Your task to perform on an android device: Clear the cart on amazon. Add rayovac triple a to the cart on amazon, then select checkout. Image 0: 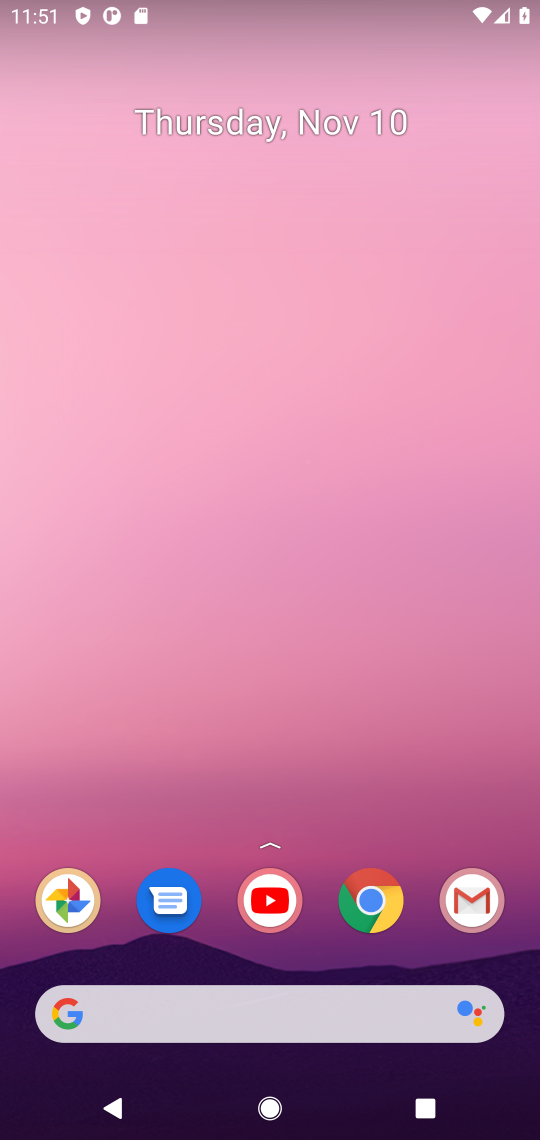
Step 0: click (376, 892)
Your task to perform on an android device: Clear the cart on amazon. Add rayovac triple a to the cart on amazon, then select checkout. Image 1: 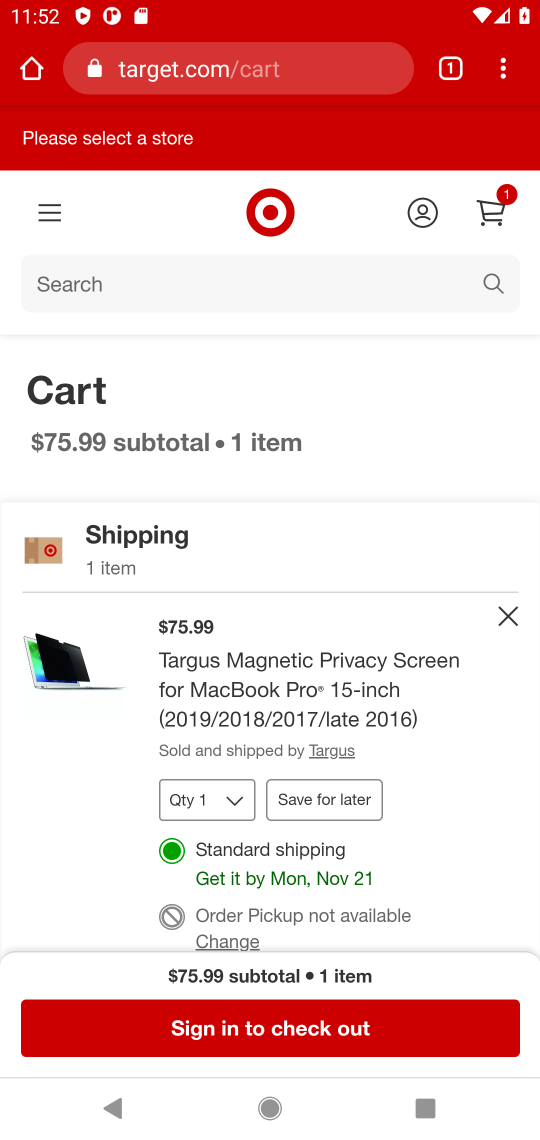
Step 1: click (228, 69)
Your task to perform on an android device: Clear the cart on amazon. Add rayovac triple a to the cart on amazon, then select checkout. Image 2: 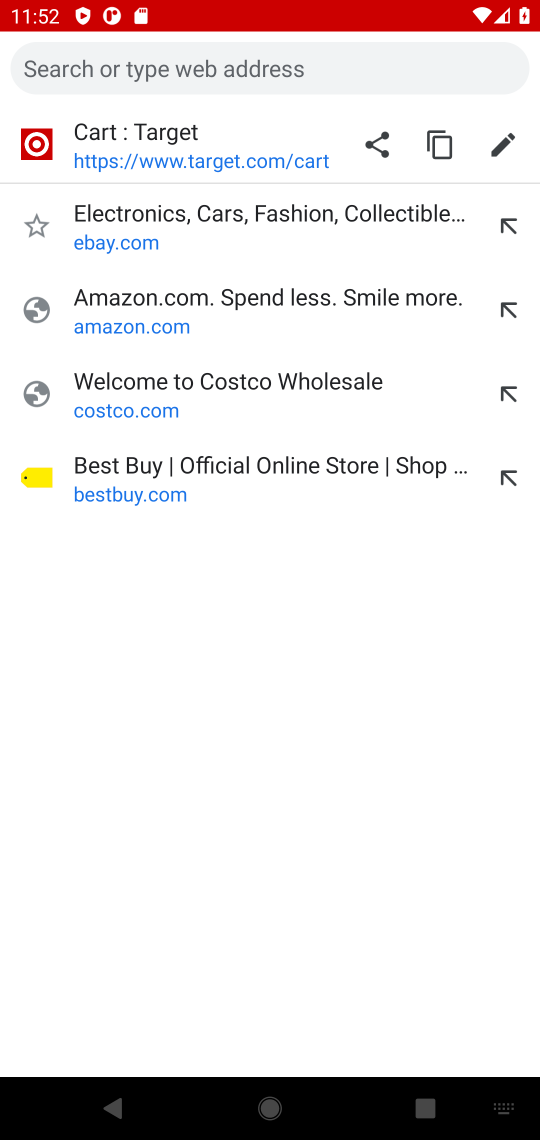
Step 2: click (162, 321)
Your task to perform on an android device: Clear the cart on amazon. Add rayovac triple a to the cart on amazon, then select checkout. Image 3: 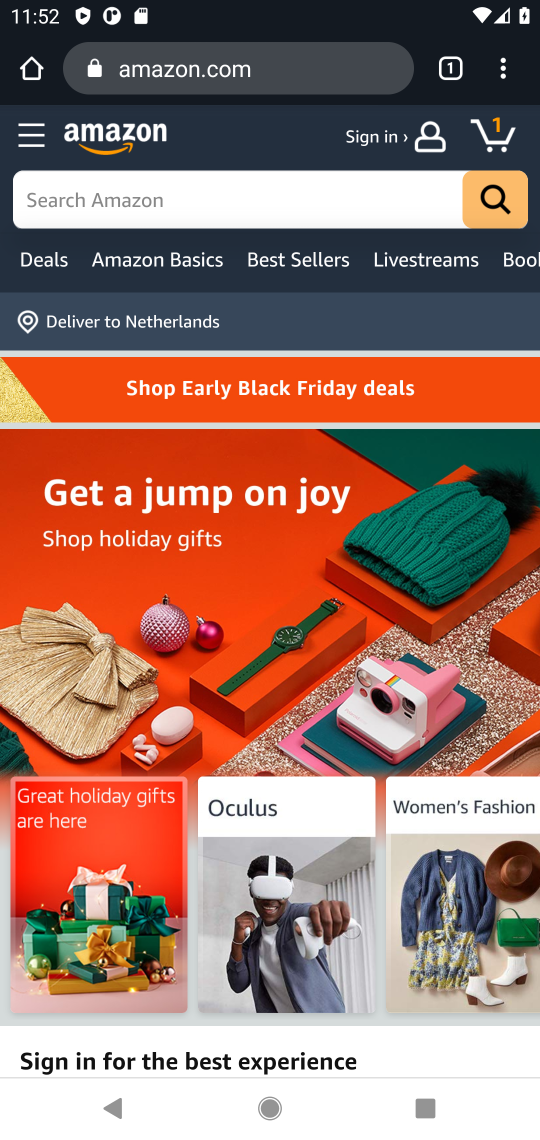
Step 3: click (110, 188)
Your task to perform on an android device: Clear the cart on amazon. Add rayovac triple a to the cart on amazon, then select checkout. Image 4: 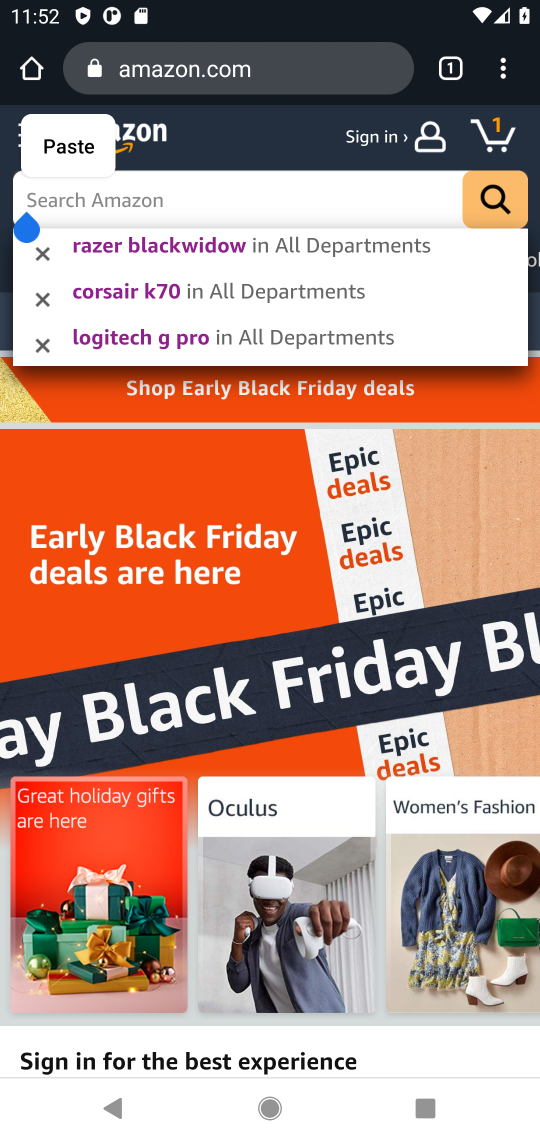
Step 4: type "rayovac triple a"
Your task to perform on an android device: Clear the cart on amazon. Add rayovac triple a to the cart on amazon, then select checkout. Image 5: 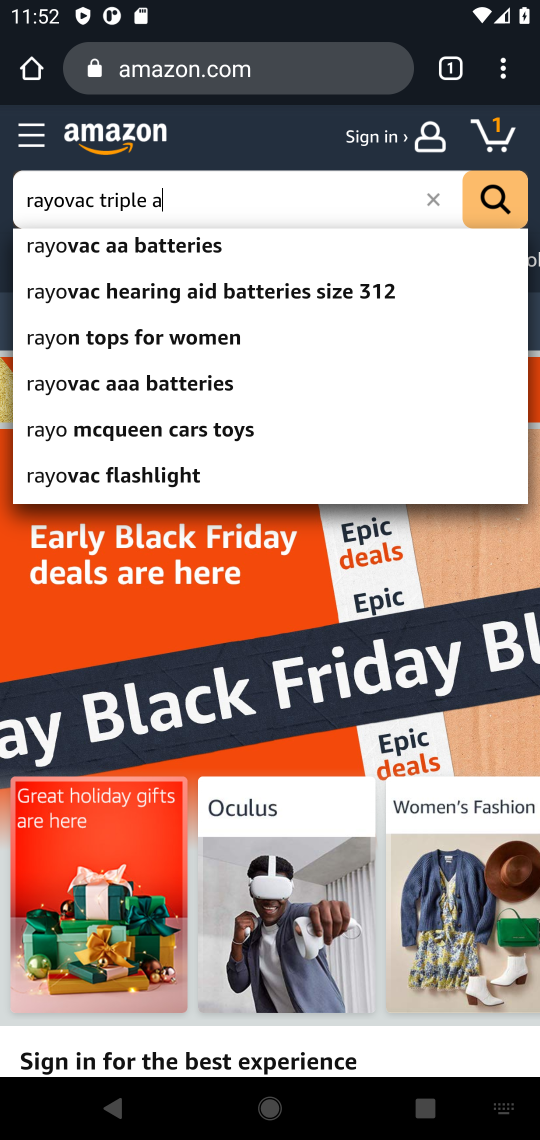
Step 5: press enter
Your task to perform on an android device: Clear the cart on amazon. Add rayovac triple a to the cart on amazon, then select checkout. Image 6: 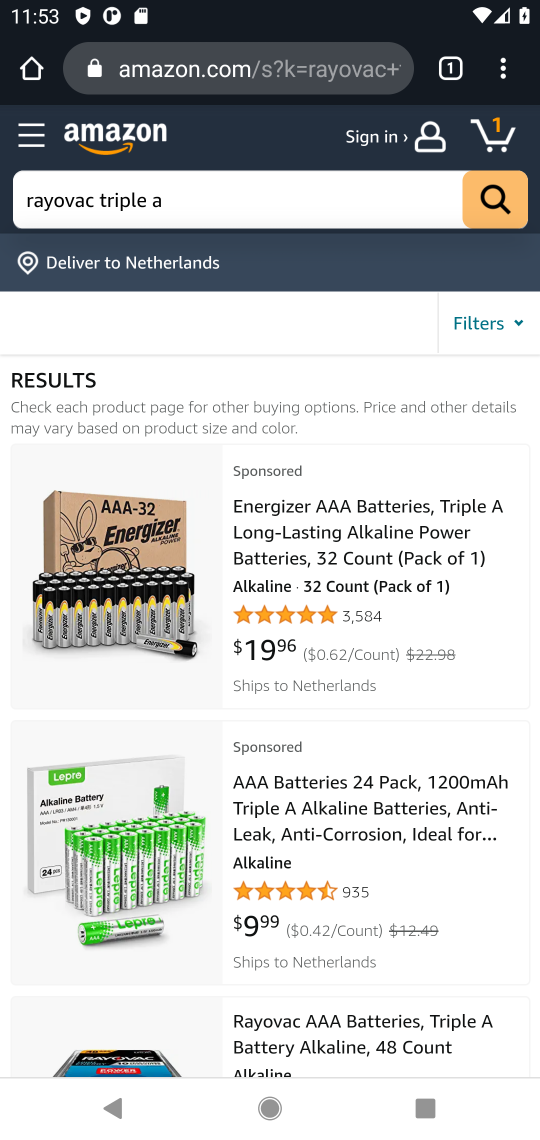
Step 6: drag from (399, 834) to (482, 512)
Your task to perform on an android device: Clear the cart on amazon. Add rayovac triple a to the cart on amazon, then select checkout. Image 7: 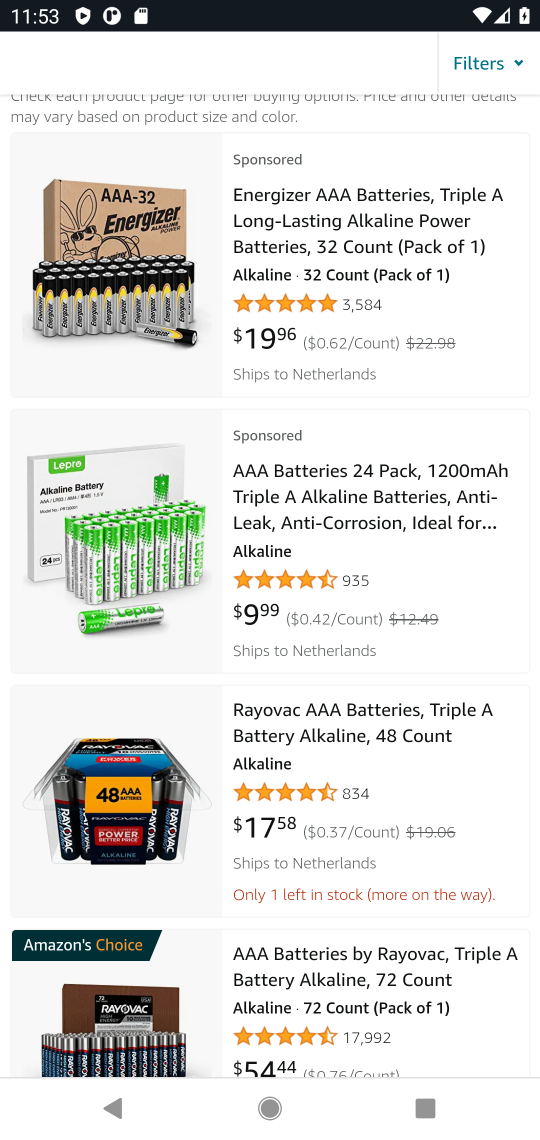
Step 7: click (356, 732)
Your task to perform on an android device: Clear the cart on amazon. Add rayovac triple a to the cart on amazon, then select checkout. Image 8: 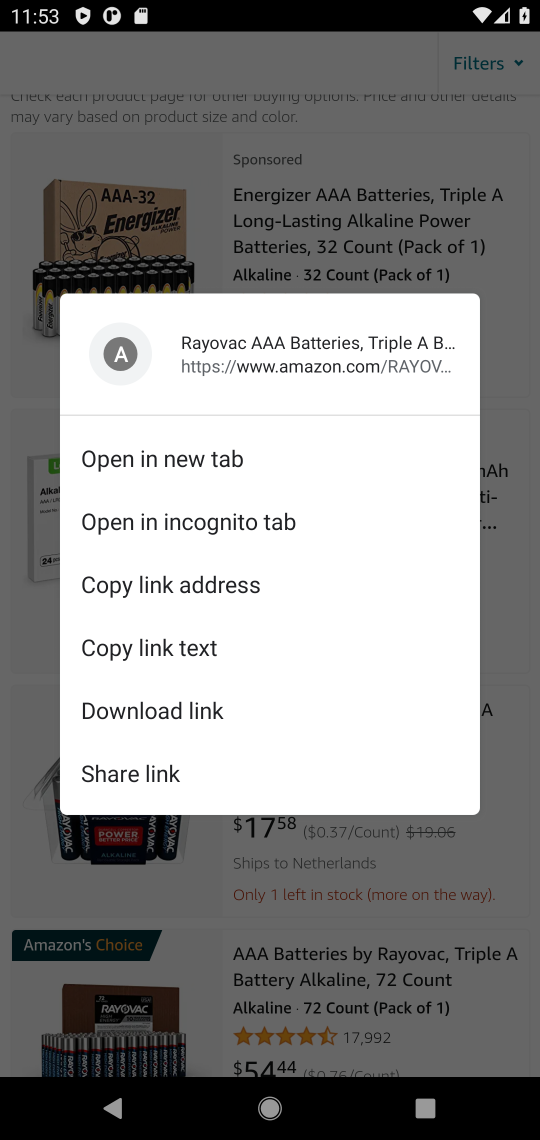
Step 8: click (520, 717)
Your task to perform on an android device: Clear the cart on amazon. Add rayovac triple a to the cart on amazon, then select checkout. Image 9: 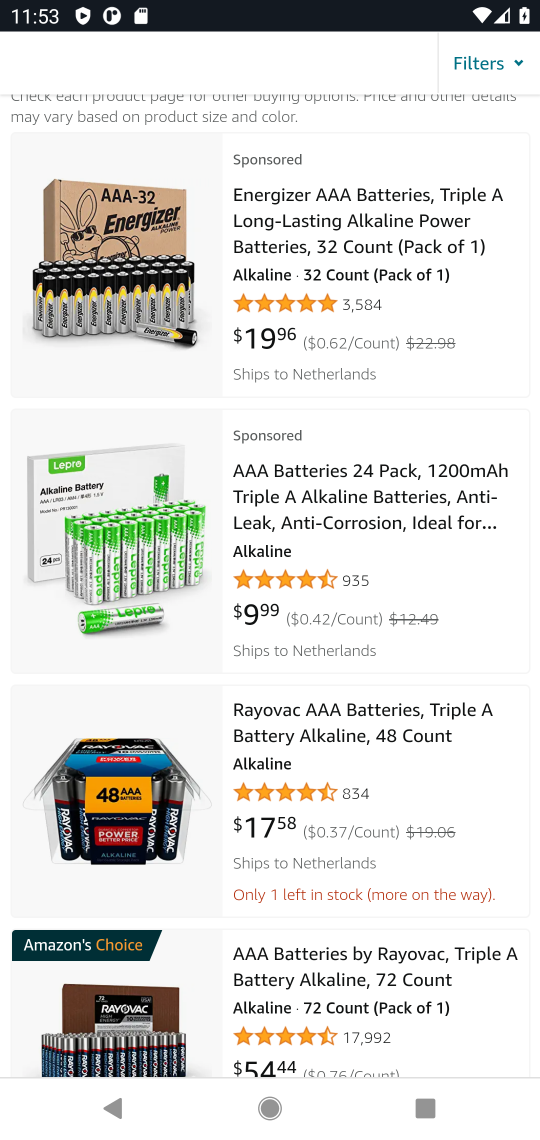
Step 9: click (292, 730)
Your task to perform on an android device: Clear the cart on amazon. Add rayovac triple a to the cart on amazon, then select checkout. Image 10: 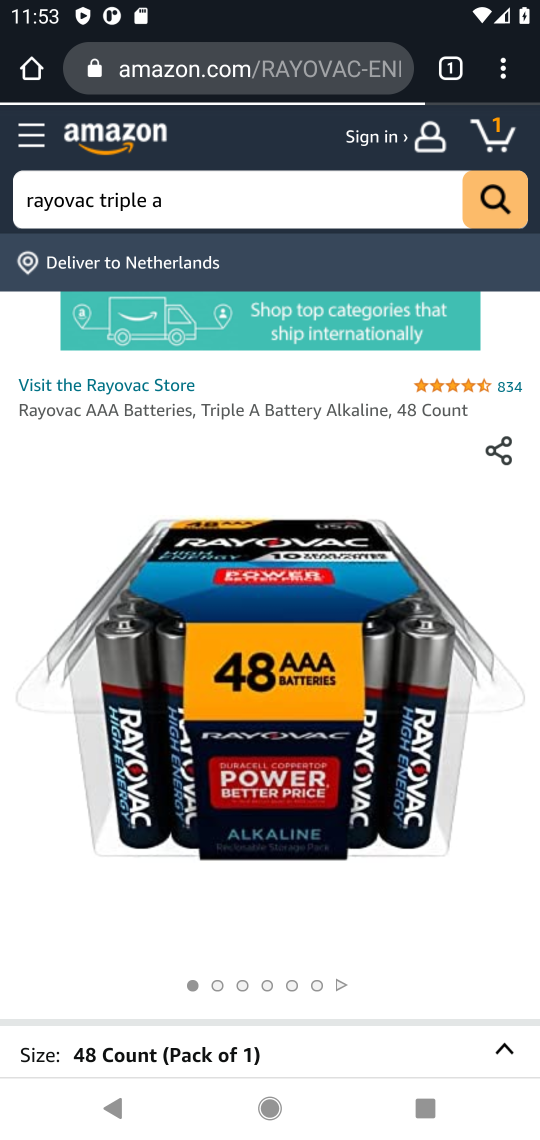
Step 10: drag from (163, 954) to (393, 244)
Your task to perform on an android device: Clear the cart on amazon. Add rayovac triple a to the cart on amazon, then select checkout. Image 11: 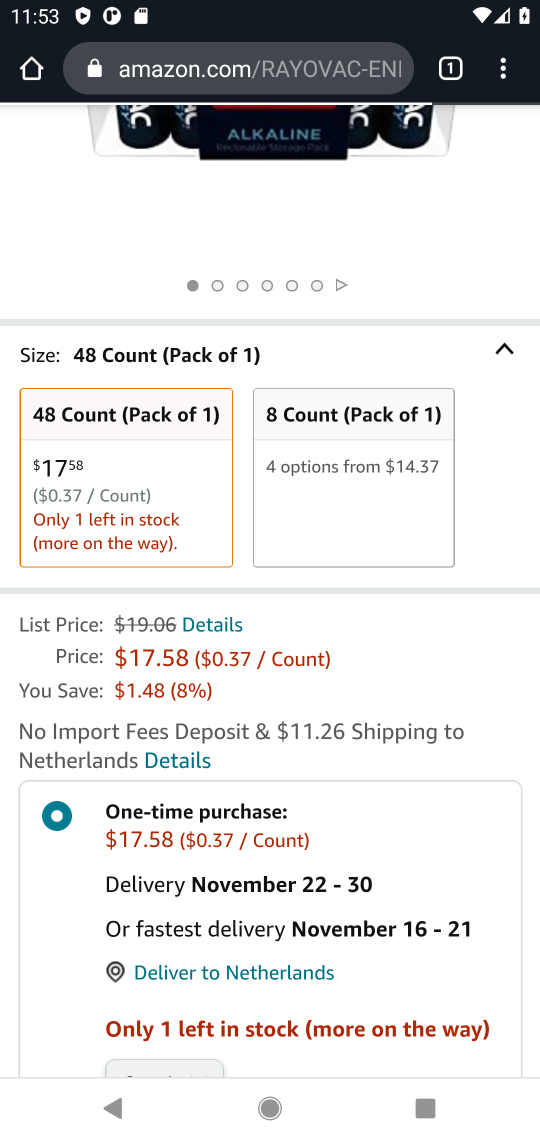
Step 11: drag from (221, 955) to (454, 210)
Your task to perform on an android device: Clear the cart on amazon. Add rayovac triple a to the cart on amazon, then select checkout. Image 12: 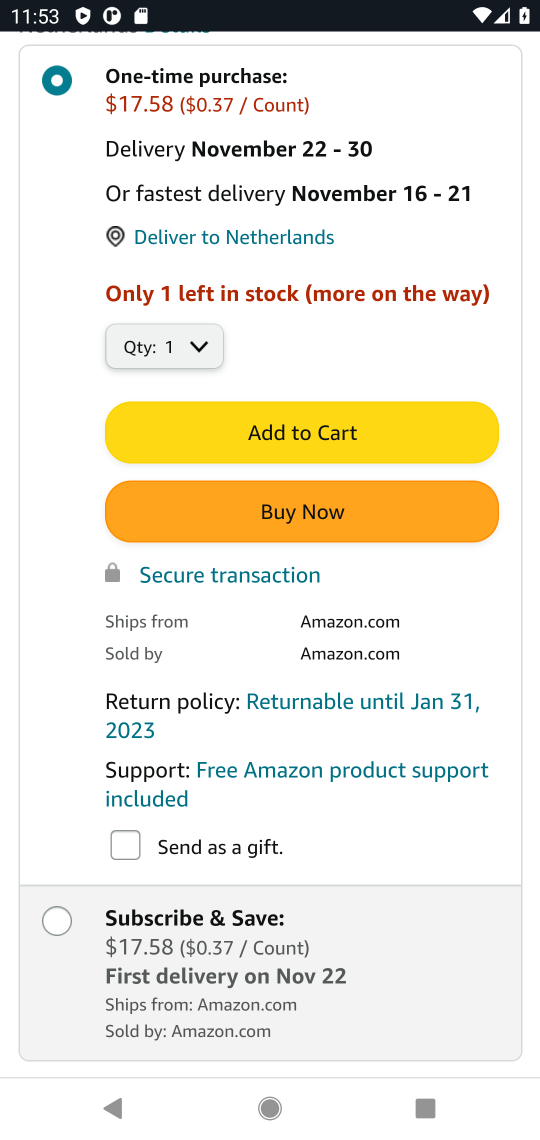
Step 12: click (332, 431)
Your task to perform on an android device: Clear the cart on amazon. Add rayovac triple a to the cart on amazon, then select checkout. Image 13: 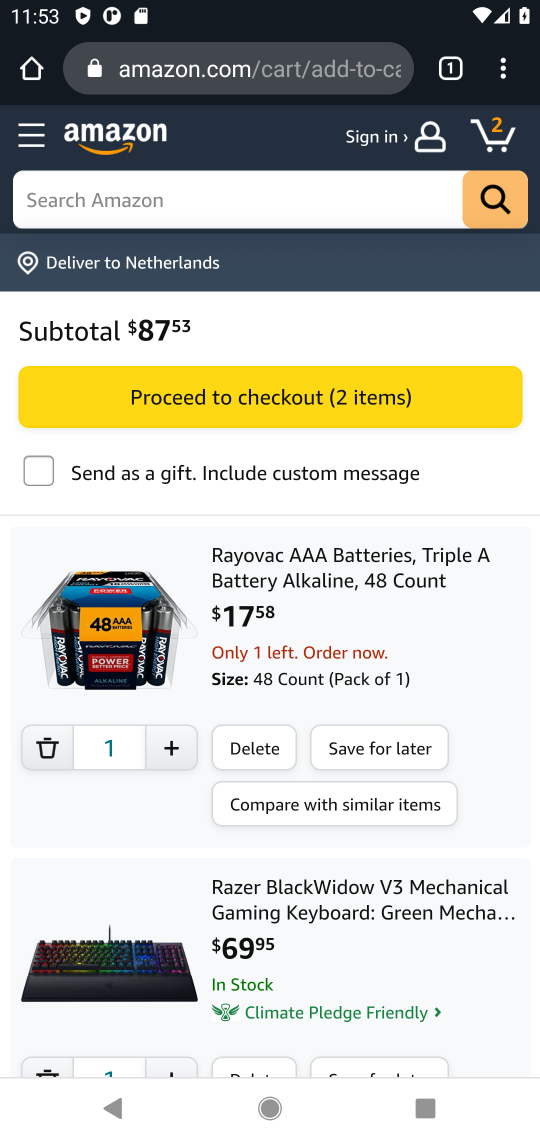
Step 13: drag from (334, 934) to (453, 528)
Your task to perform on an android device: Clear the cart on amazon. Add rayovac triple a to the cart on amazon, then select checkout. Image 14: 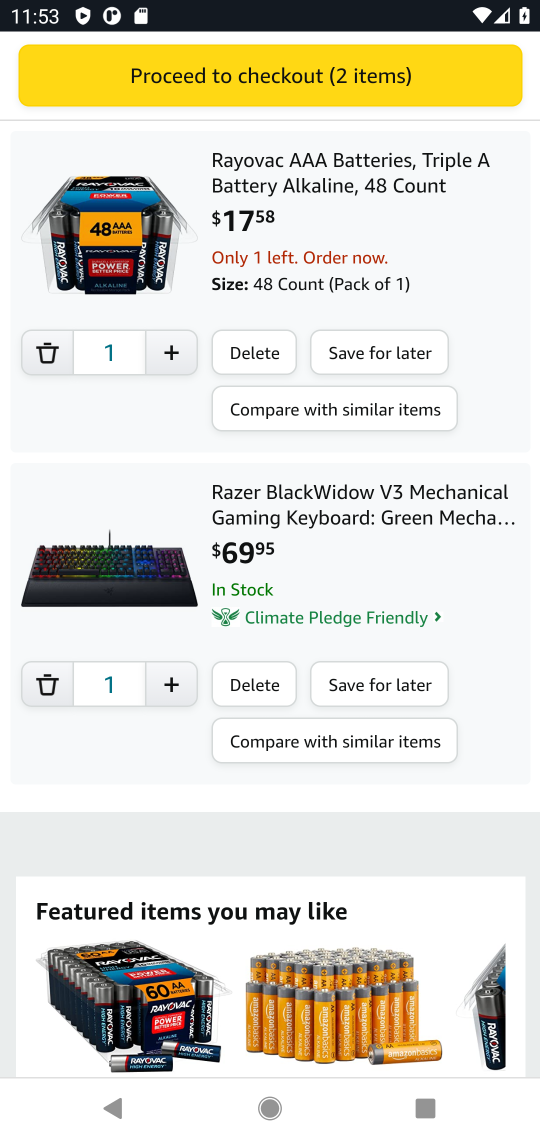
Step 14: click (254, 685)
Your task to perform on an android device: Clear the cart on amazon. Add rayovac triple a to the cart on amazon, then select checkout. Image 15: 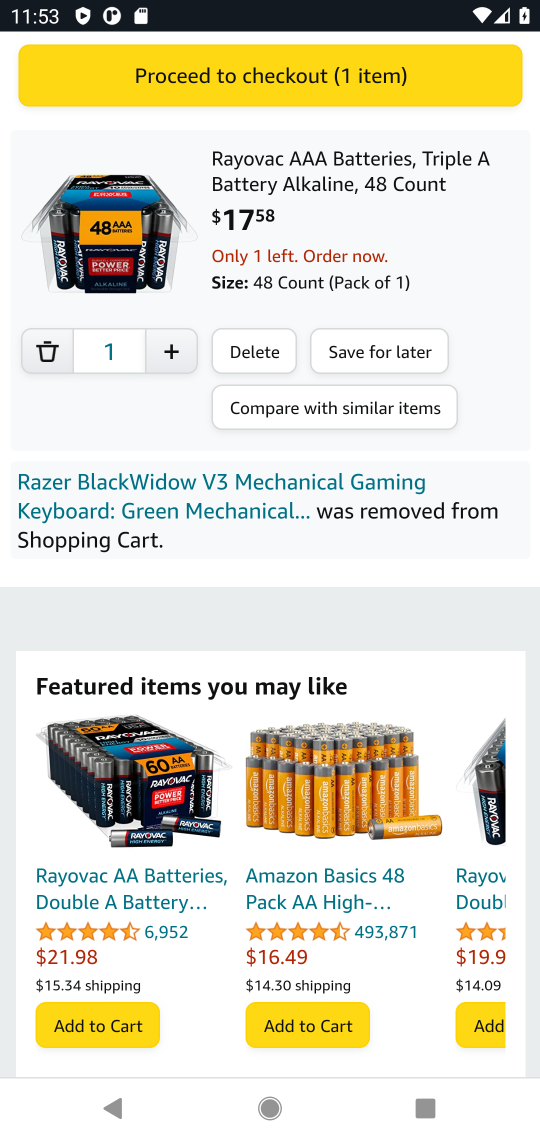
Step 15: click (303, 64)
Your task to perform on an android device: Clear the cart on amazon. Add rayovac triple a to the cart on amazon, then select checkout. Image 16: 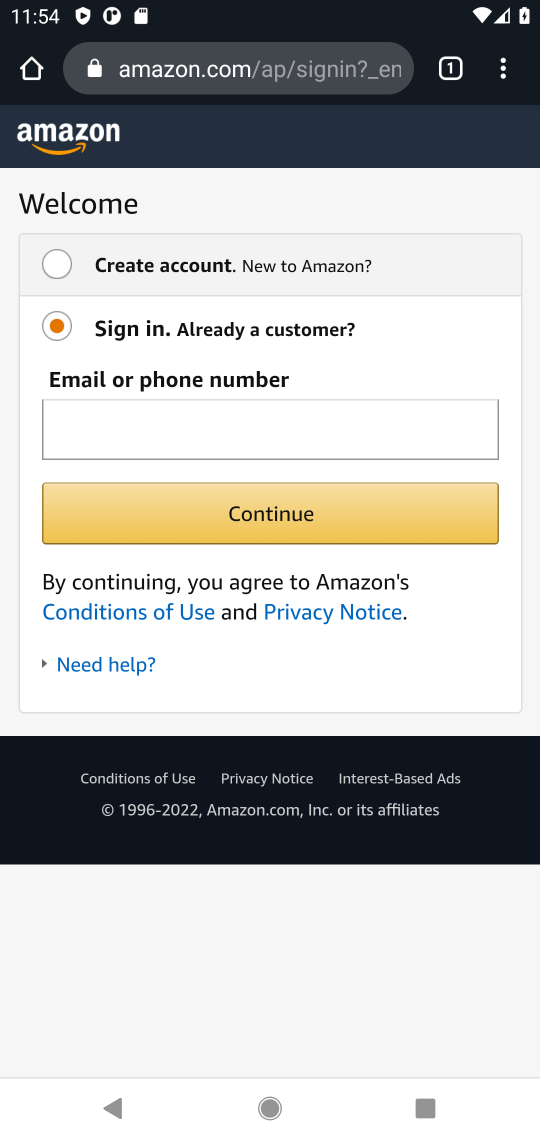
Step 16: task complete